Your task to perform on an android device: Go to Reddit.com Image 0: 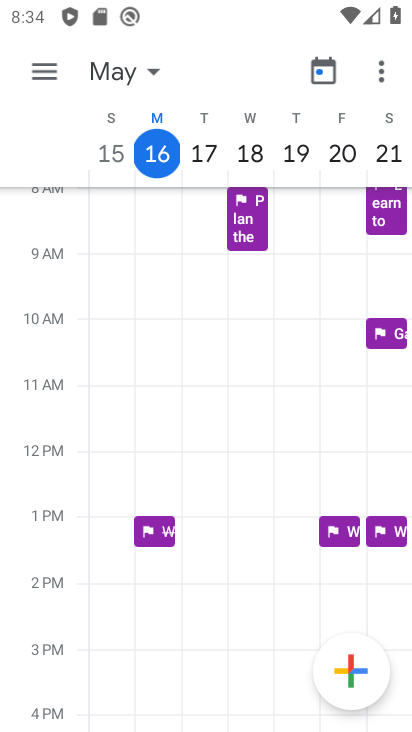
Step 0: press home button
Your task to perform on an android device: Go to Reddit.com Image 1: 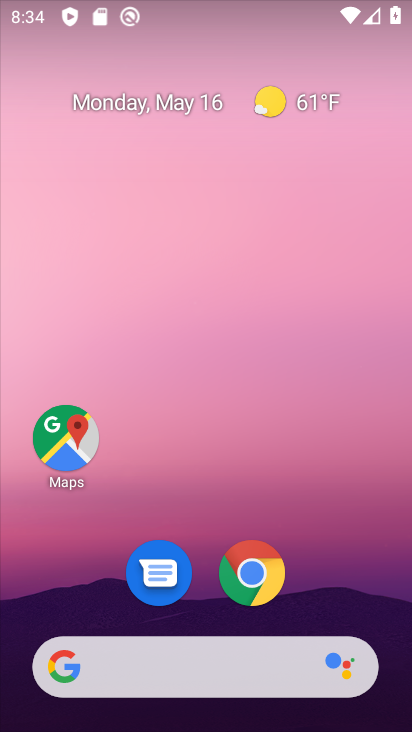
Step 1: click (251, 576)
Your task to perform on an android device: Go to Reddit.com Image 2: 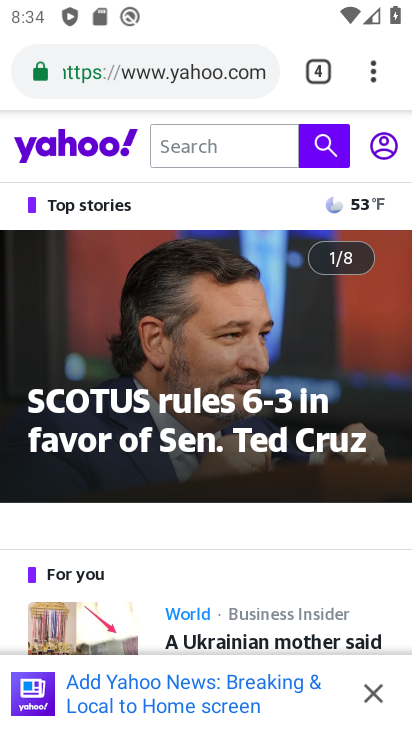
Step 2: click (373, 78)
Your task to perform on an android device: Go to Reddit.com Image 3: 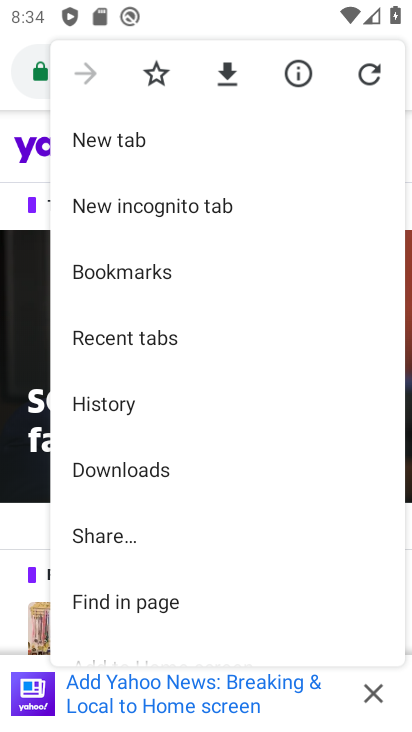
Step 3: click (121, 135)
Your task to perform on an android device: Go to Reddit.com Image 4: 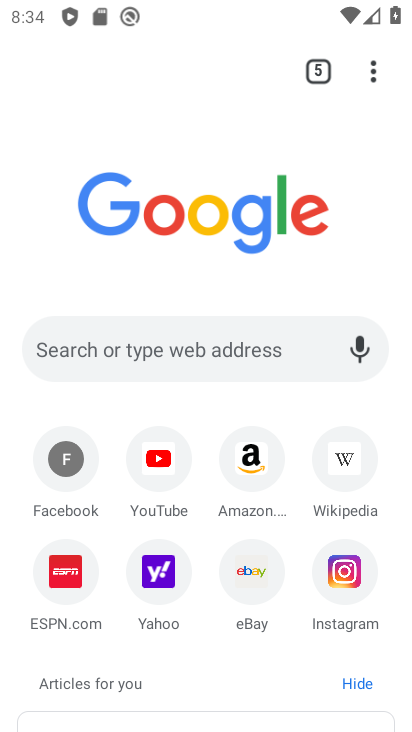
Step 4: click (209, 347)
Your task to perform on an android device: Go to Reddit.com Image 5: 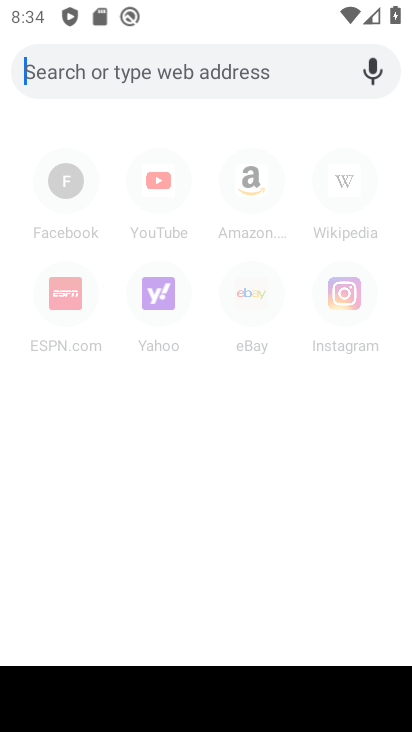
Step 5: type "Reddit.com"
Your task to perform on an android device: Go to Reddit.com Image 6: 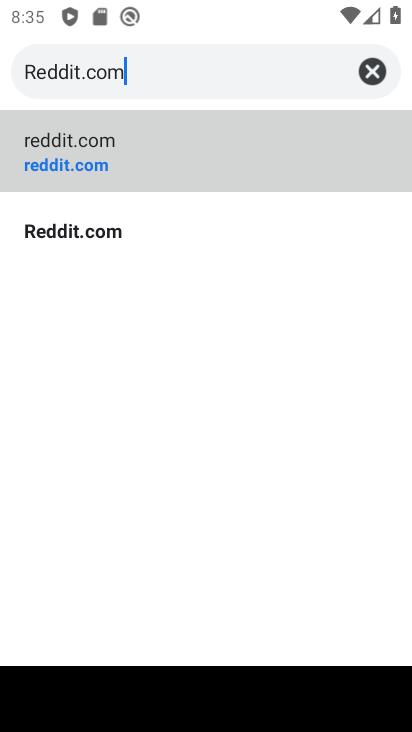
Step 6: click (44, 146)
Your task to perform on an android device: Go to Reddit.com Image 7: 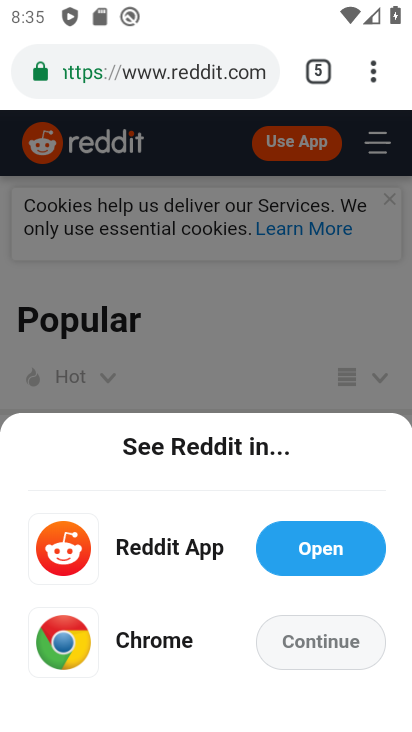
Step 7: task complete